Your task to perform on an android device: Open calendar and show me the third week of next month Image 0: 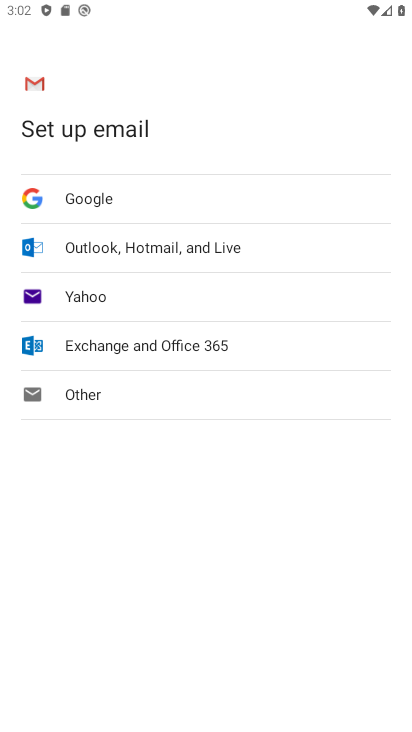
Step 0: press home button
Your task to perform on an android device: Open calendar and show me the third week of next month Image 1: 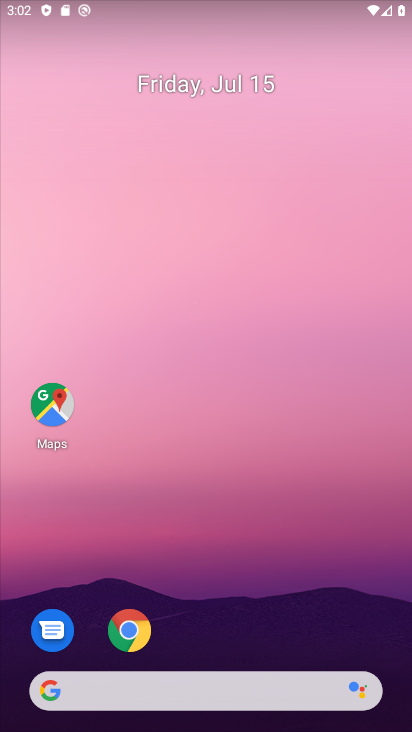
Step 1: drag from (254, 721) to (347, 57)
Your task to perform on an android device: Open calendar and show me the third week of next month Image 2: 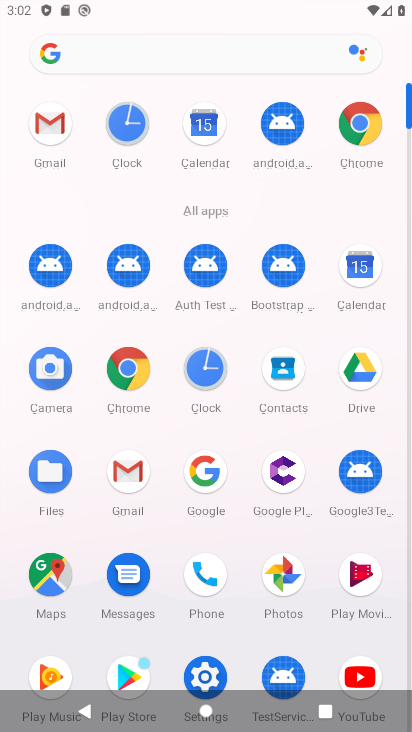
Step 2: click (370, 275)
Your task to perform on an android device: Open calendar and show me the third week of next month Image 3: 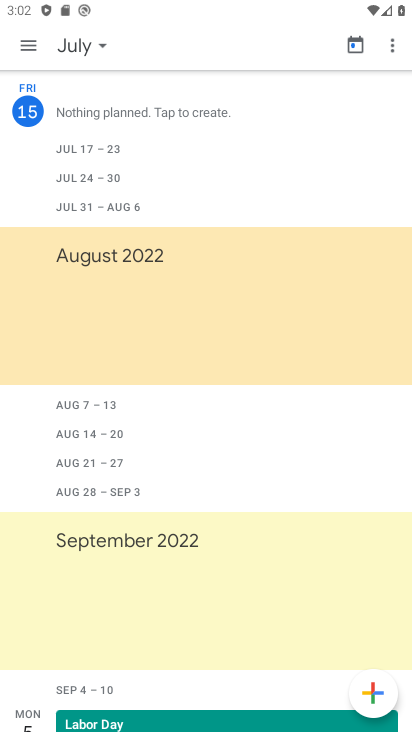
Step 3: click (81, 45)
Your task to perform on an android device: Open calendar and show me the third week of next month Image 4: 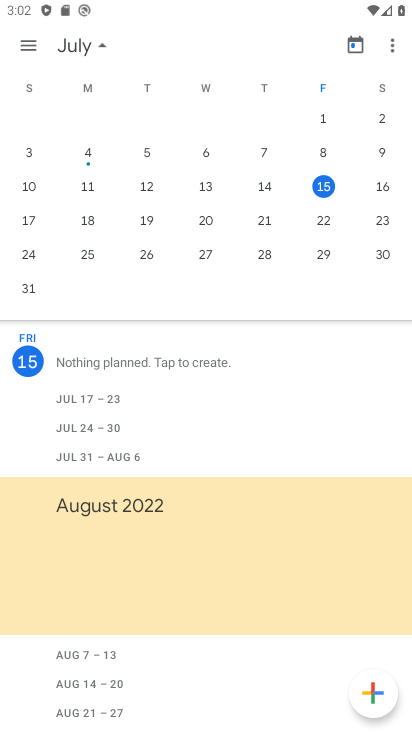
Step 4: drag from (351, 181) to (3, 211)
Your task to perform on an android device: Open calendar and show me the third week of next month Image 5: 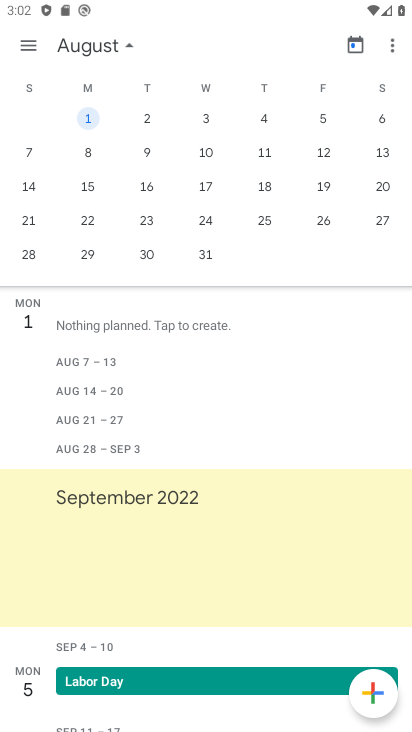
Step 5: click (25, 186)
Your task to perform on an android device: Open calendar and show me the third week of next month Image 6: 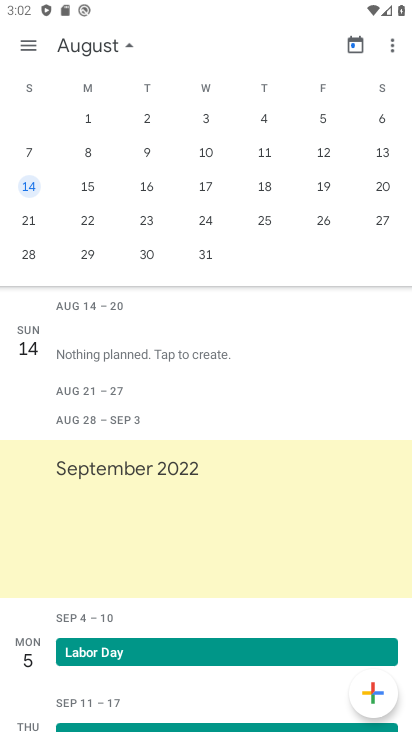
Step 6: task complete